Your task to perform on an android device: turn off location Image 0: 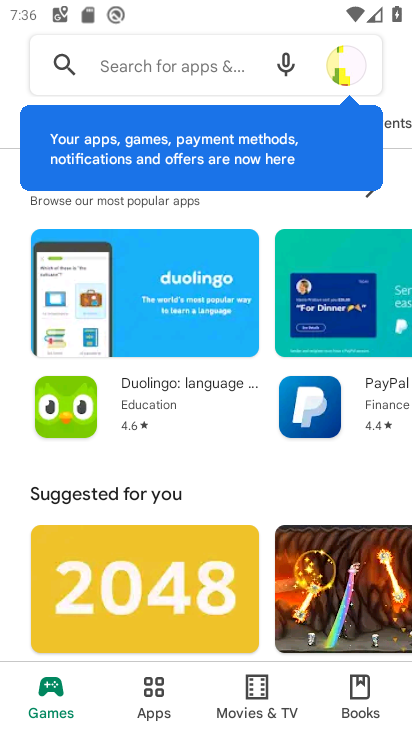
Step 0: press home button
Your task to perform on an android device: turn off location Image 1: 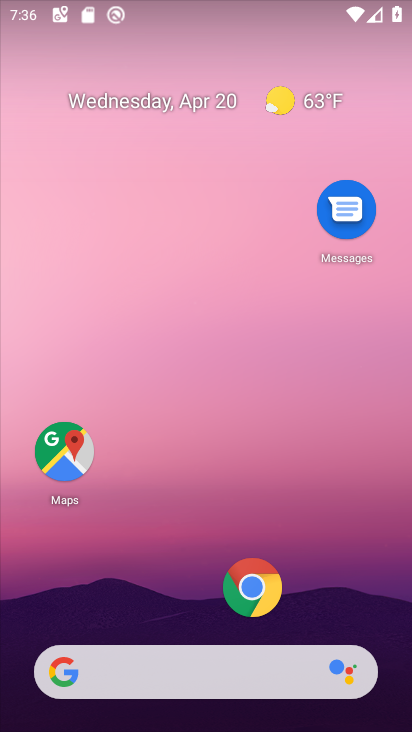
Step 1: drag from (276, 239) to (317, 123)
Your task to perform on an android device: turn off location Image 2: 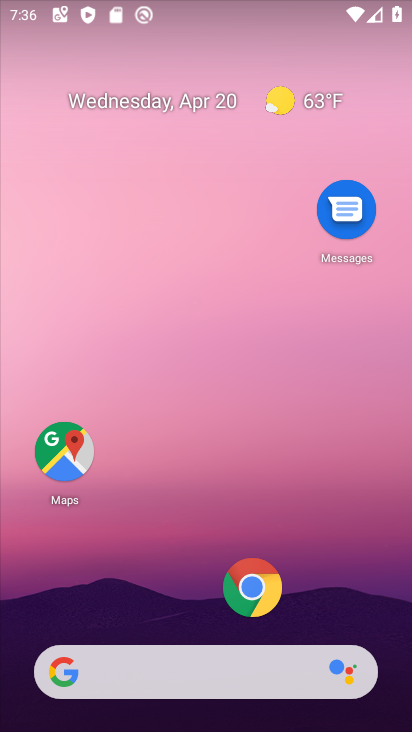
Step 2: drag from (180, 685) to (350, 42)
Your task to perform on an android device: turn off location Image 3: 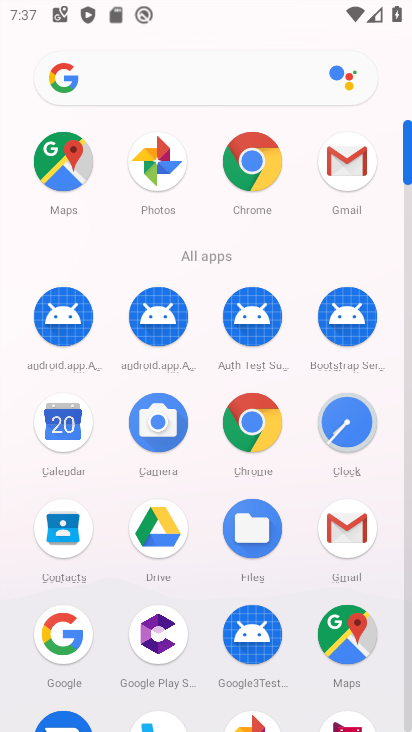
Step 3: drag from (192, 609) to (356, 152)
Your task to perform on an android device: turn off location Image 4: 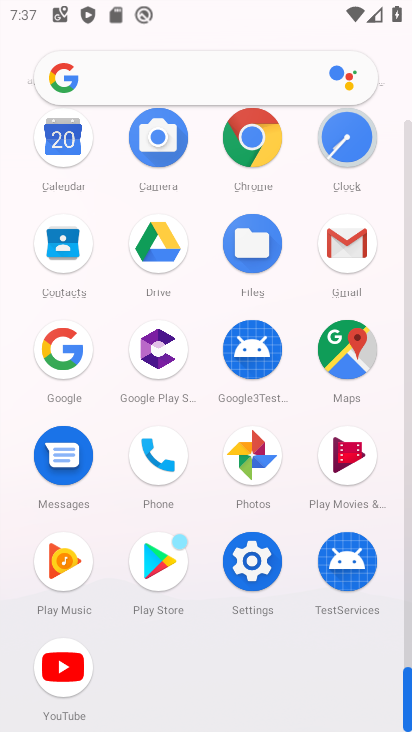
Step 4: click (251, 560)
Your task to perform on an android device: turn off location Image 5: 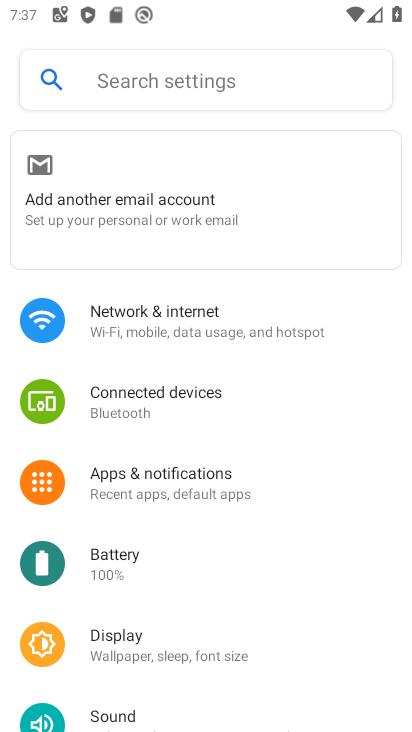
Step 5: drag from (237, 584) to (338, 245)
Your task to perform on an android device: turn off location Image 6: 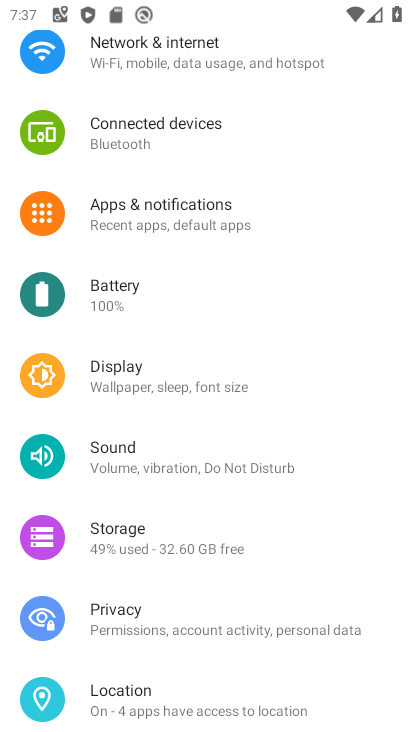
Step 6: click (131, 698)
Your task to perform on an android device: turn off location Image 7: 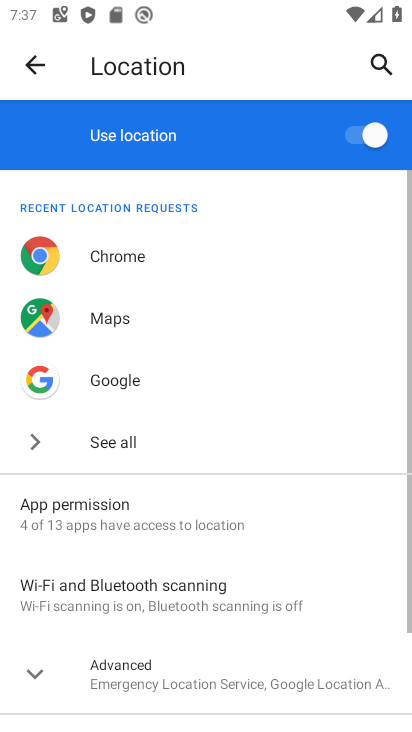
Step 7: click (357, 130)
Your task to perform on an android device: turn off location Image 8: 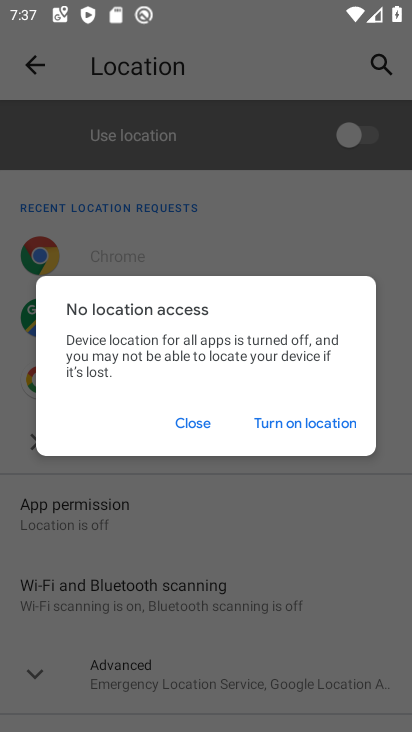
Step 8: click (209, 430)
Your task to perform on an android device: turn off location Image 9: 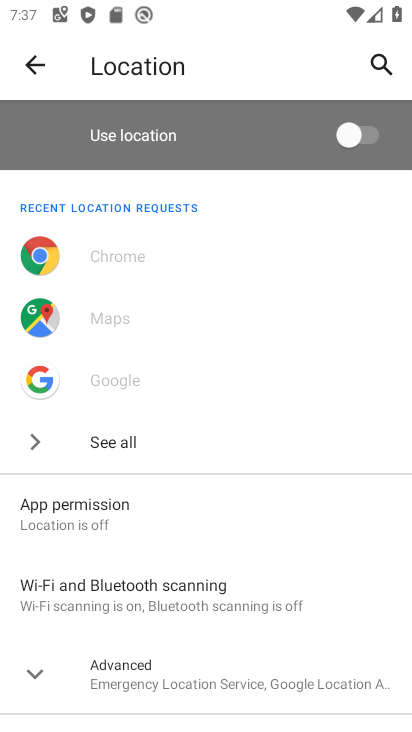
Step 9: task complete